Your task to perform on an android device: open app "Nova Launcher" (install if not already installed) Image 0: 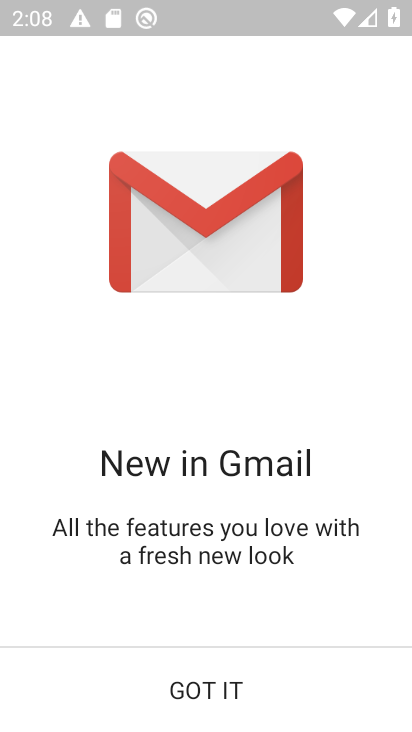
Step 0: press home button
Your task to perform on an android device: open app "Nova Launcher" (install if not already installed) Image 1: 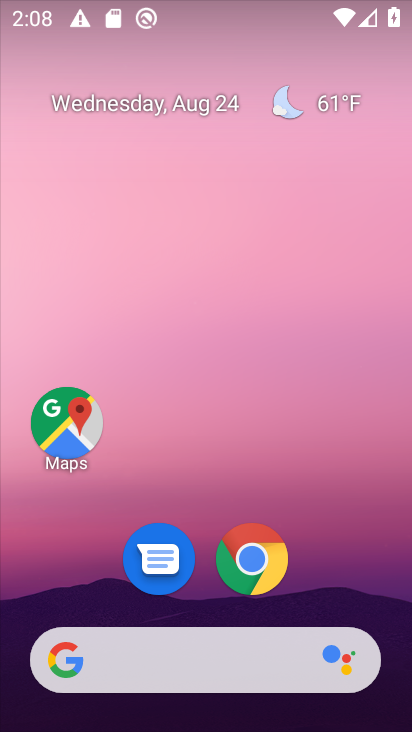
Step 1: drag from (224, 316) to (253, 64)
Your task to perform on an android device: open app "Nova Launcher" (install if not already installed) Image 2: 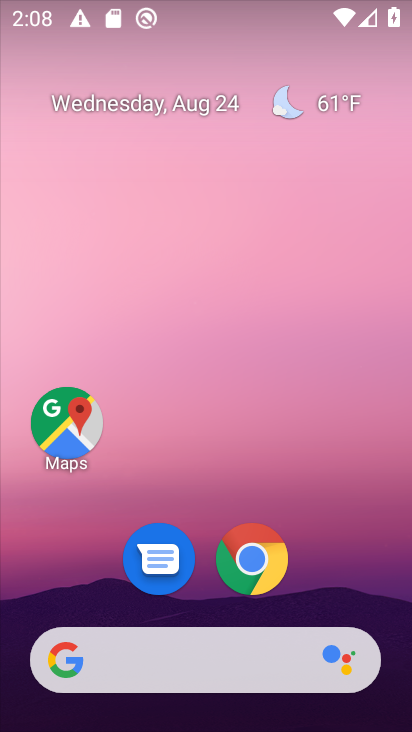
Step 2: drag from (198, 615) to (197, 211)
Your task to perform on an android device: open app "Nova Launcher" (install if not already installed) Image 3: 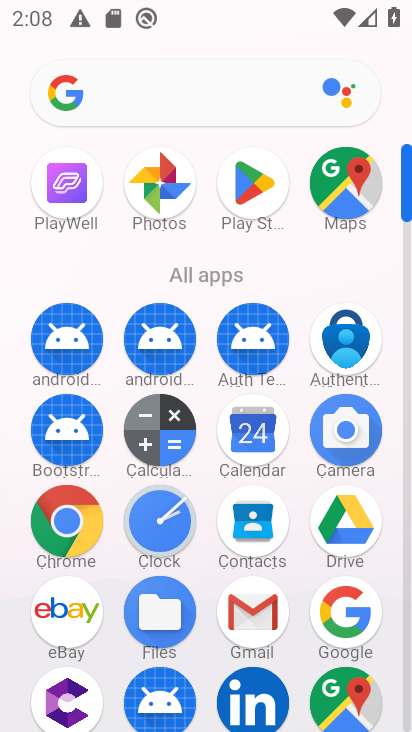
Step 3: click (245, 196)
Your task to perform on an android device: open app "Nova Launcher" (install if not already installed) Image 4: 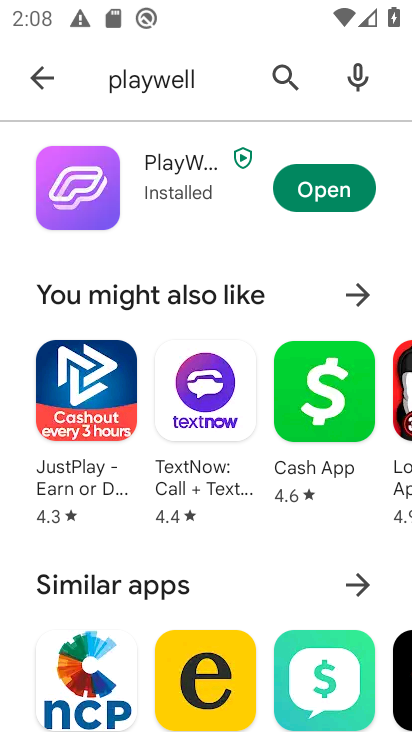
Step 4: click (288, 75)
Your task to perform on an android device: open app "Nova Launcher" (install if not already installed) Image 5: 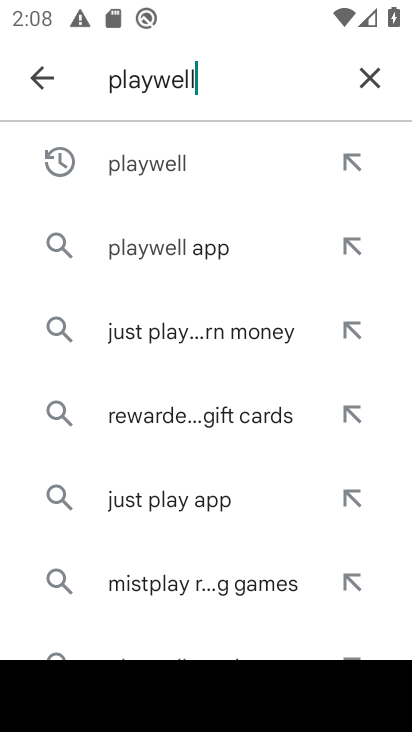
Step 5: click (371, 83)
Your task to perform on an android device: open app "Nova Launcher" (install if not already installed) Image 6: 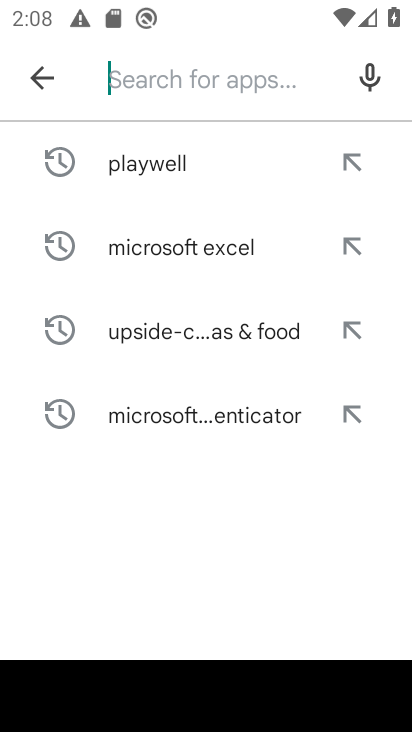
Step 6: type "Nova Launcher"
Your task to perform on an android device: open app "Nova Launcher" (install if not already installed) Image 7: 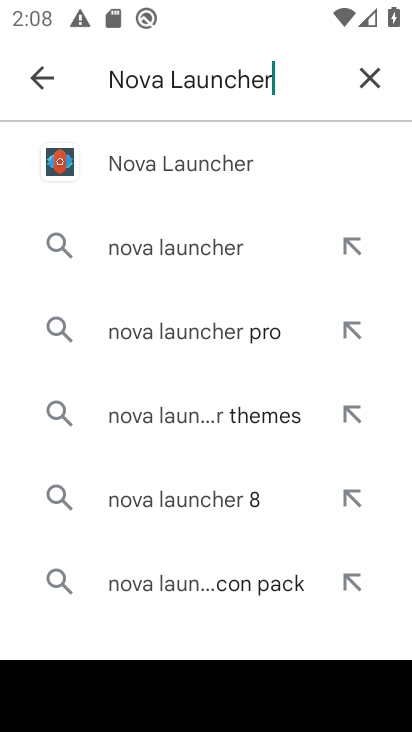
Step 7: click (193, 161)
Your task to perform on an android device: open app "Nova Launcher" (install if not already installed) Image 8: 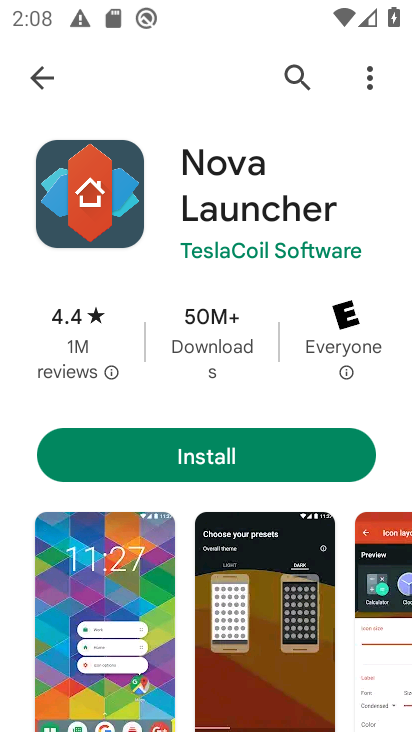
Step 8: click (208, 464)
Your task to perform on an android device: open app "Nova Launcher" (install if not already installed) Image 9: 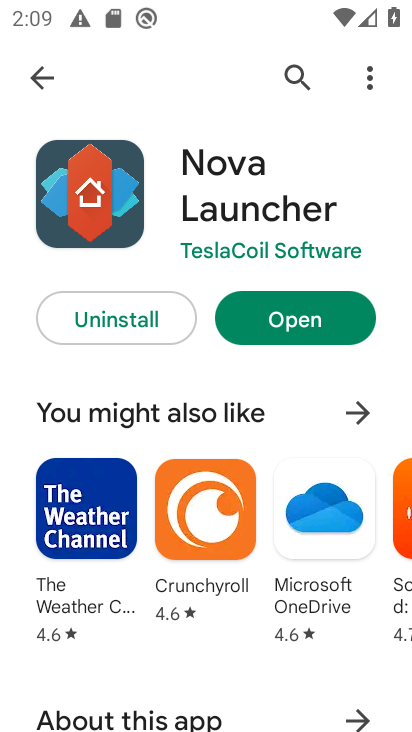
Step 9: click (285, 322)
Your task to perform on an android device: open app "Nova Launcher" (install if not already installed) Image 10: 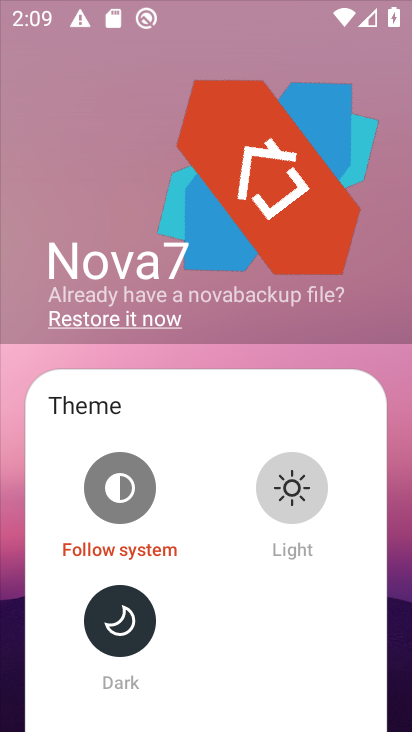
Step 10: task complete